Your task to perform on an android device: turn pop-ups off in chrome Image 0: 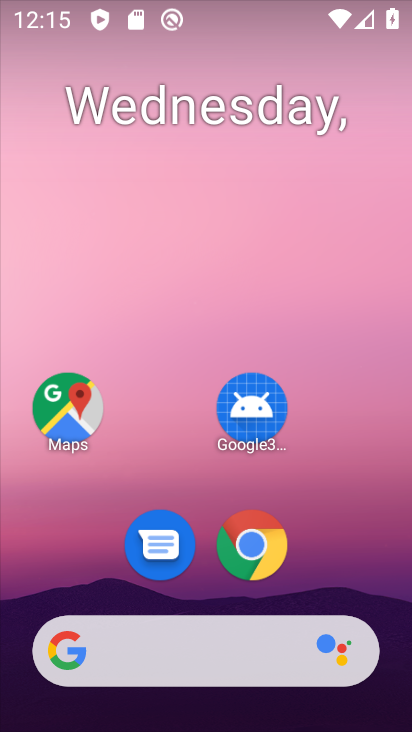
Step 0: click (295, 552)
Your task to perform on an android device: turn pop-ups off in chrome Image 1: 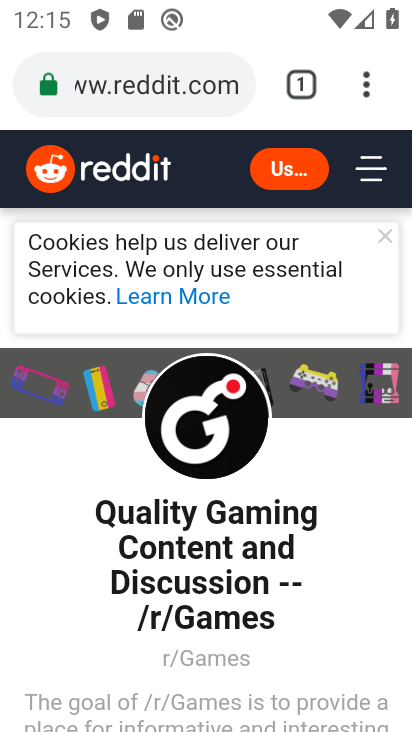
Step 1: click (352, 98)
Your task to perform on an android device: turn pop-ups off in chrome Image 2: 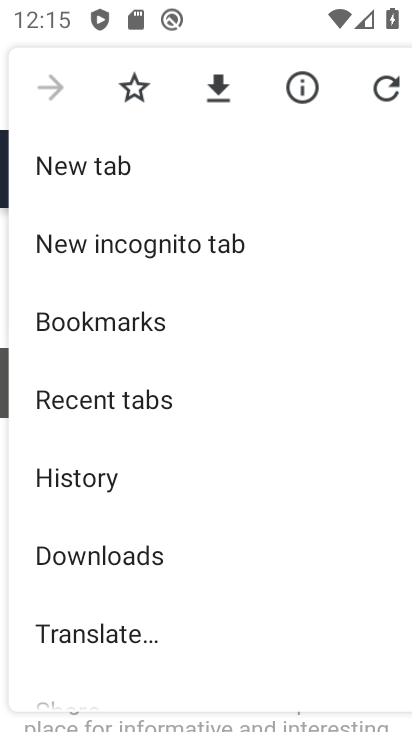
Step 2: drag from (252, 510) to (211, 327)
Your task to perform on an android device: turn pop-ups off in chrome Image 3: 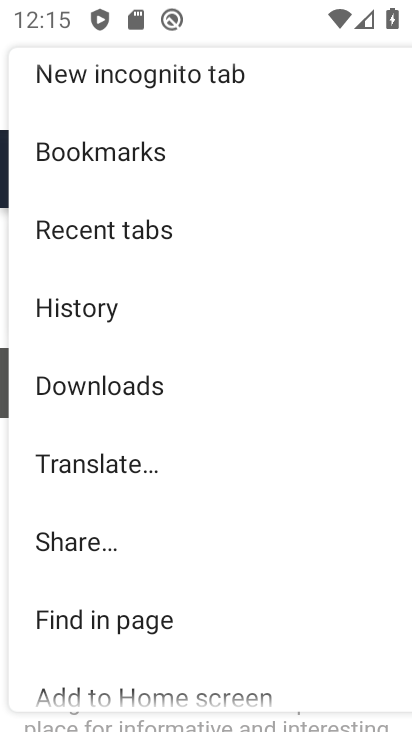
Step 3: drag from (244, 511) to (226, 318)
Your task to perform on an android device: turn pop-ups off in chrome Image 4: 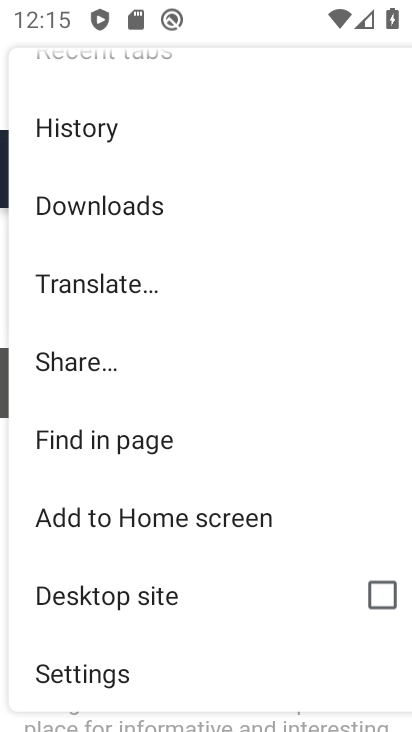
Step 4: click (215, 659)
Your task to perform on an android device: turn pop-ups off in chrome Image 5: 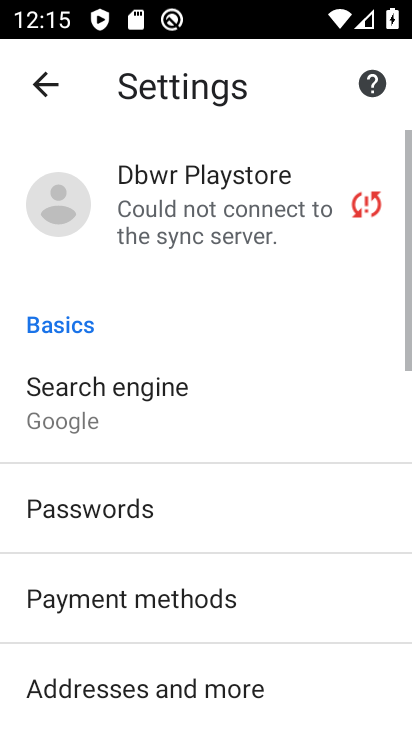
Step 5: drag from (209, 698) to (164, 384)
Your task to perform on an android device: turn pop-ups off in chrome Image 6: 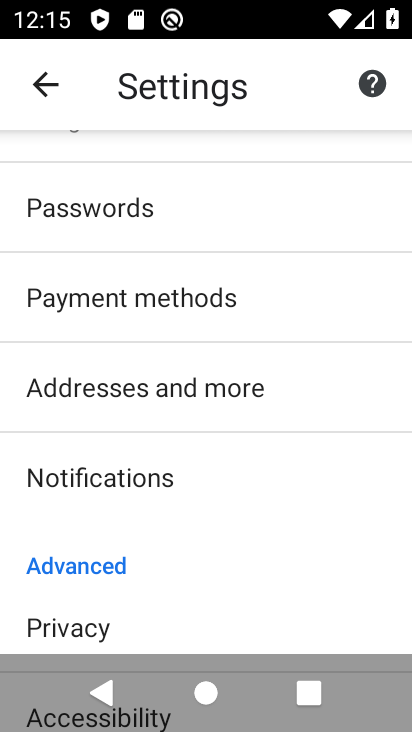
Step 6: drag from (181, 520) to (163, 252)
Your task to perform on an android device: turn pop-ups off in chrome Image 7: 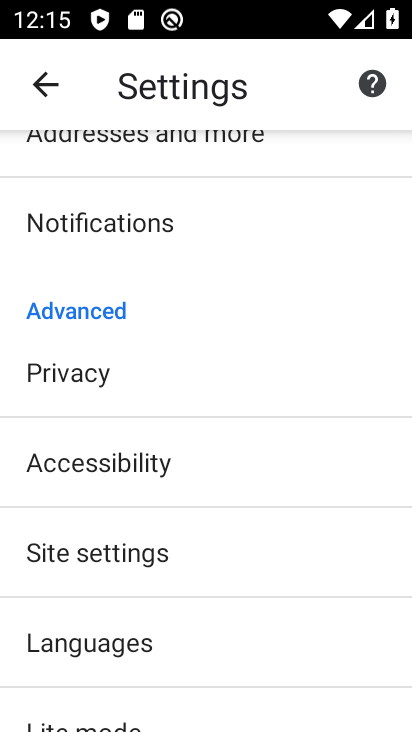
Step 7: click (169, 575)
Your task to perform on an android device: turn pop-ups off in chrome Image 8: 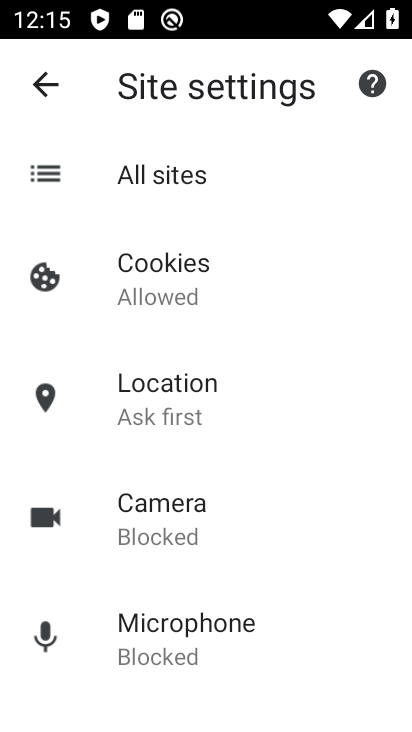
Step 8: drag from (169, 588) to (121, 406)
Your task to perform on an android device: turn pop-ups off in chrome Image 9: 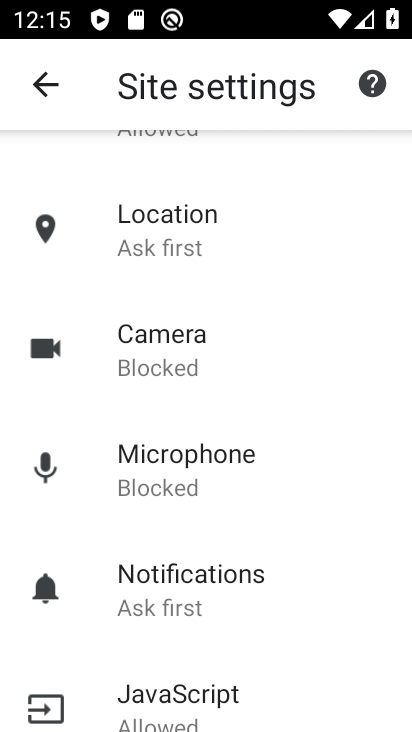
Step 9: click (141, 708)
Your task to perform on an android device: turn pop-ups off in chrome Image 10: 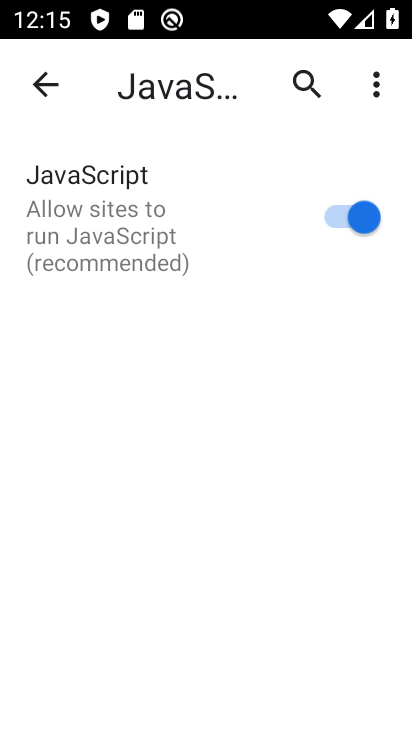
Step 10: click (314, 230)
Your task to perform on an android device: turn pop-ups off in chrome Image 11: 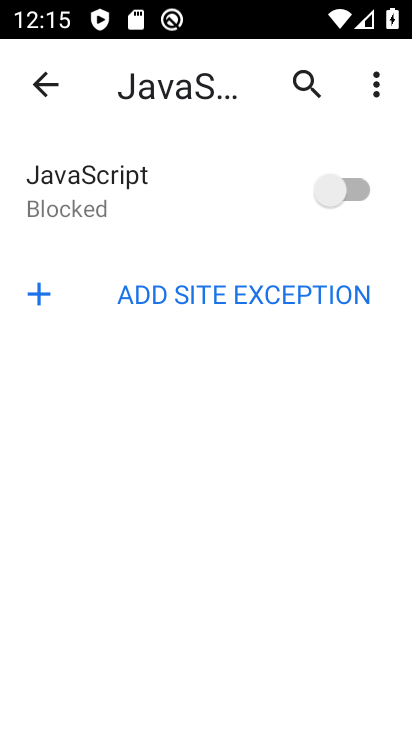
Step 11: task complete